Your task to perform on an android device: Go to Google Image 0: 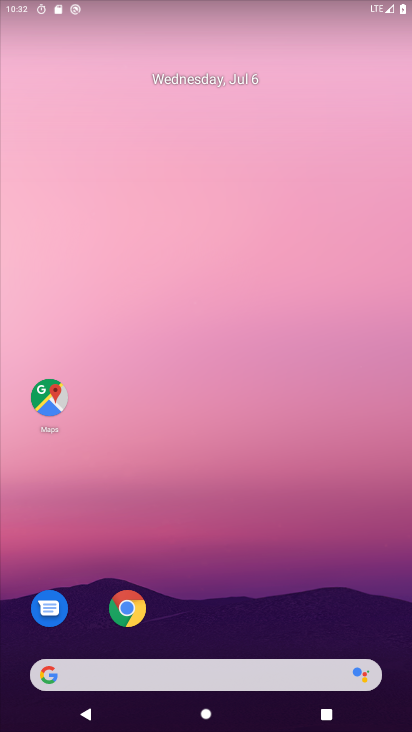
Step 0: click (160, 670)
Your task to perform on an android device: Go to Google Image 1: 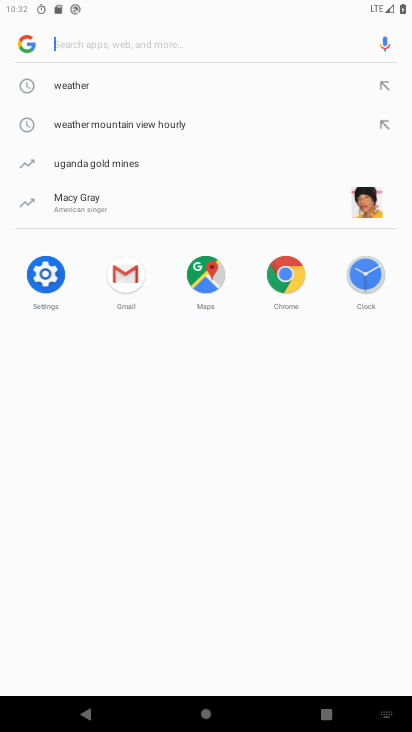
Step 1: click (27, 37)
Your task to perform on an android device: Go to Google Image 2: 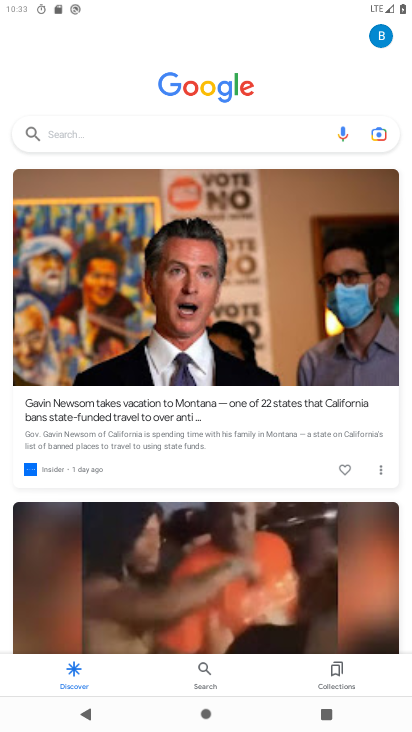
Step 2: task complete